Your task to perform on an android device: change text size in settings app Image 0: 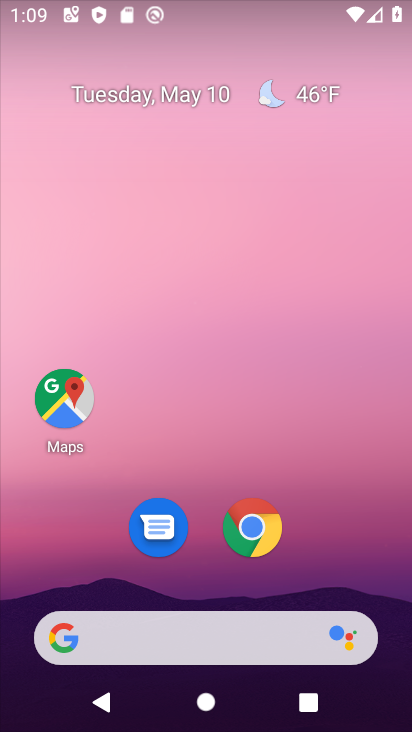
Step 0: drag from (372, 559) to (400, 3)
Your task to perform on an android device: change text size in settings app Image 1: 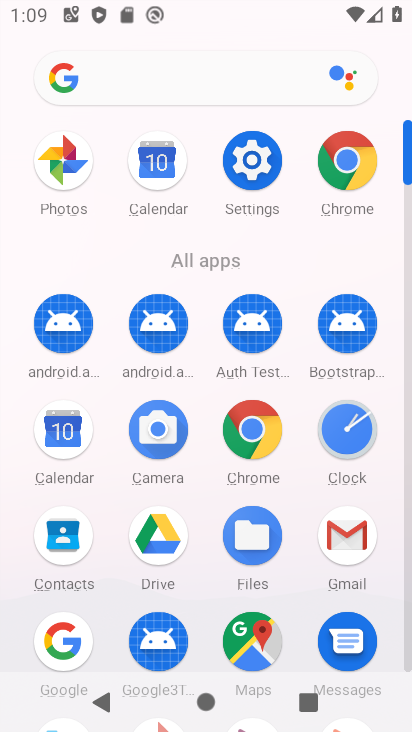
Step 1: click (253, 178)
Your task to perform on an android device: change text size in settings app Image 2: 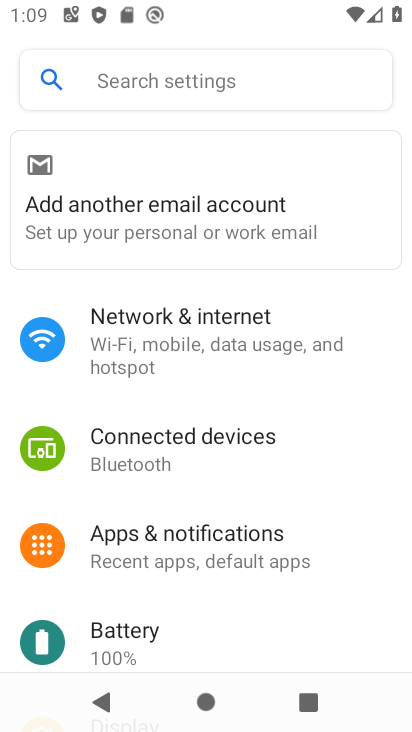
Step 2: drag from (291, 614) to (317, 310)
Your task to perform on an android device: change text size in settings app Image 3: 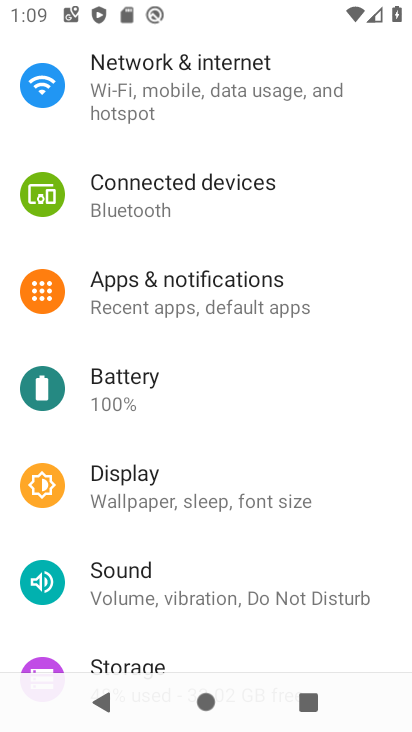
Step 3: click (129, 484)
Your task to perform on an android device: change text size in settings app Image 4: 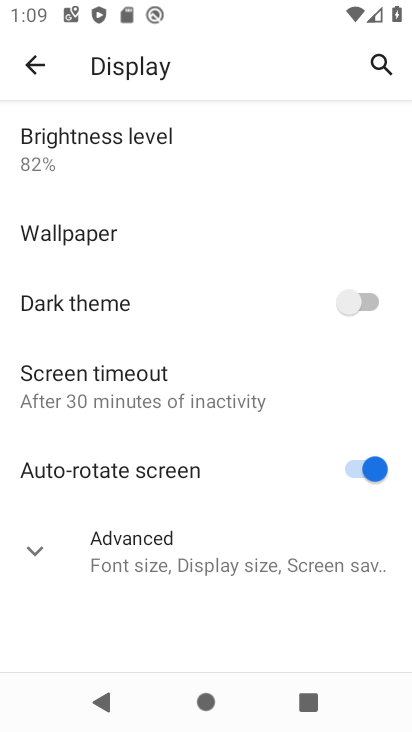
Step 4: click (37, 558)
Your task to perform on an android device: change text size in settings app Image 5: 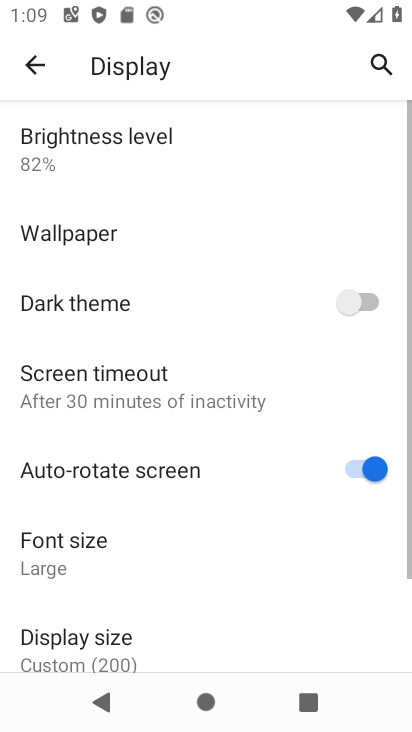
Step 5: drag from (170, 516) to (176, 377)
Your task to perform on an android device: change text size in settings app Image 6: 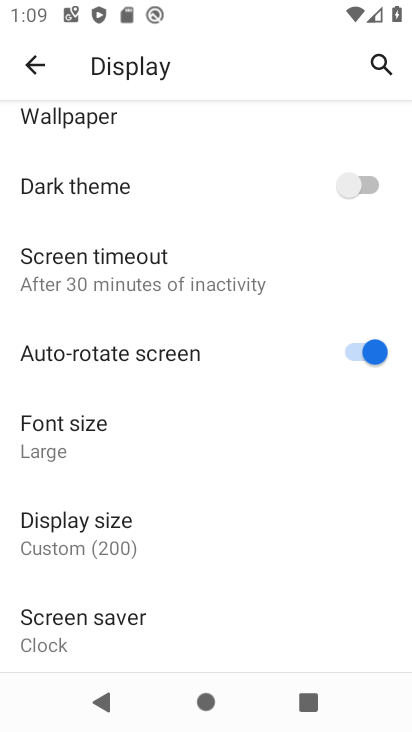
Step 6: click (58, 428)
Your task to perform on an android device: change text size in settings app Image 7: 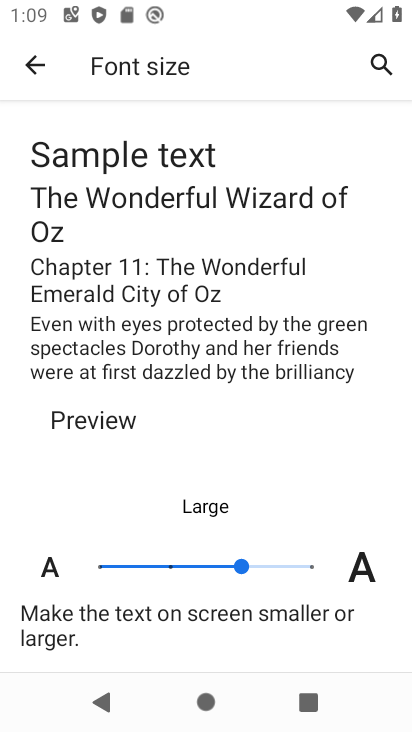
Step 7: click (166, 568)
Your task to perform on an android device: change text size in settings app Image 8: 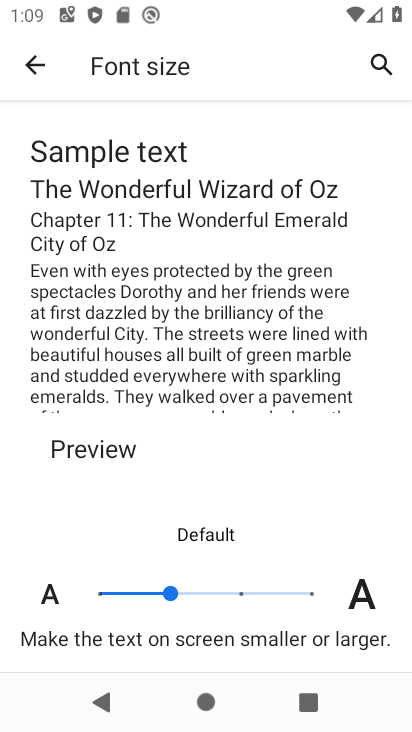
Step 8: task complete